Your task to perform on an android device: manage bookmarks in the chrome app Image 0: 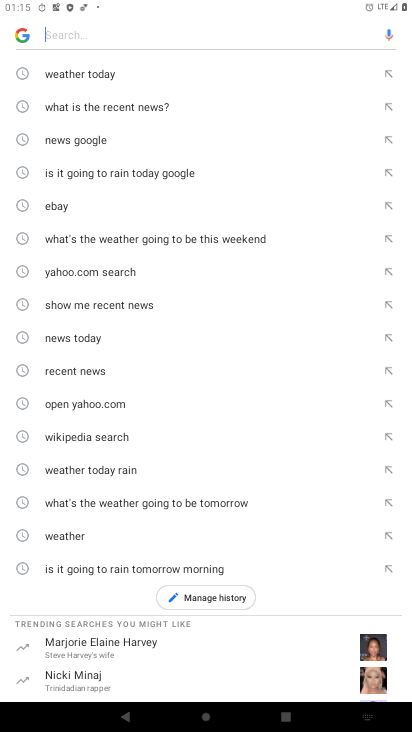
Step 0: press home button
Your task to perform on an android device: manage bookmarks in the chrome app Image 1: 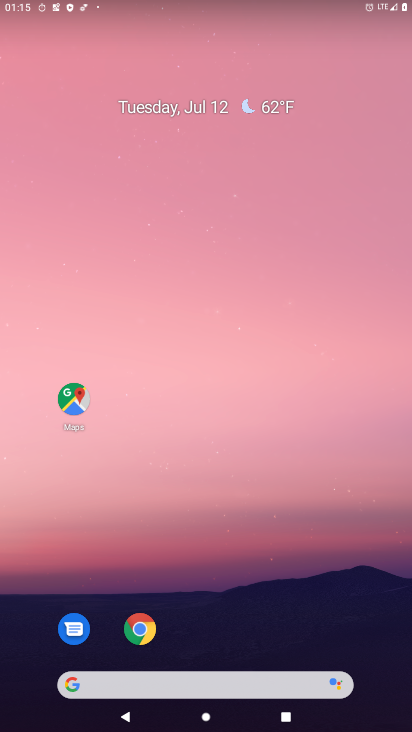
Step 1: drag from (203, 638) to (277, 27)
Your task to perform on an android device: manage bookmarks in the chrome app Image 2: 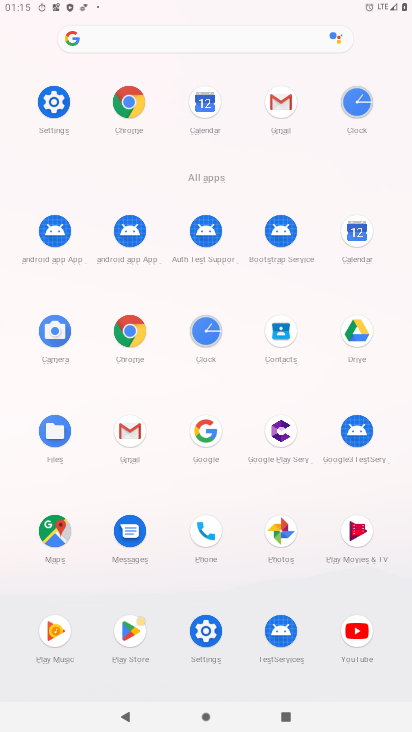
Step 2: click (121, 322)
Your task to perform on an android device: manage bookmarks in the chrome app Image 3: 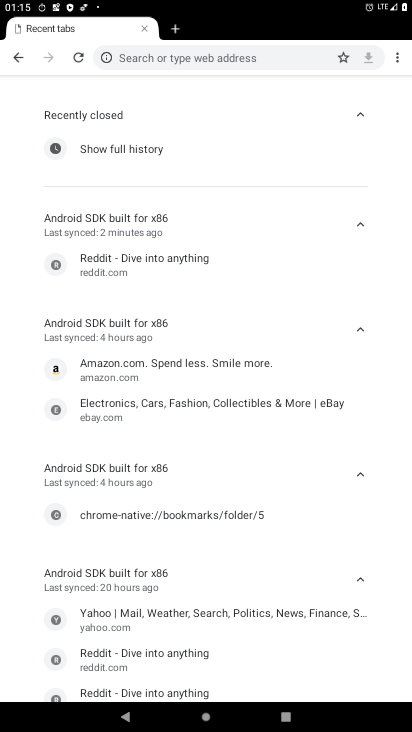
Step 3: task complete